Your task to perform on an android device: What's the weather like in San Francisco? Image 0: 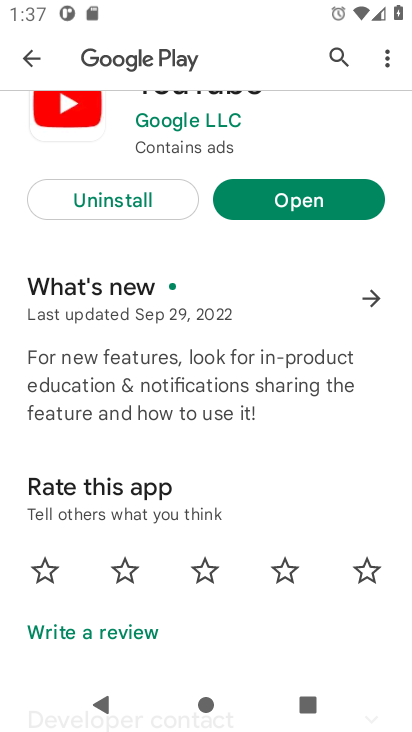
Step 0: press home button
Your task to perform on an android device: What's the weather like in San Francisco? Image 1: 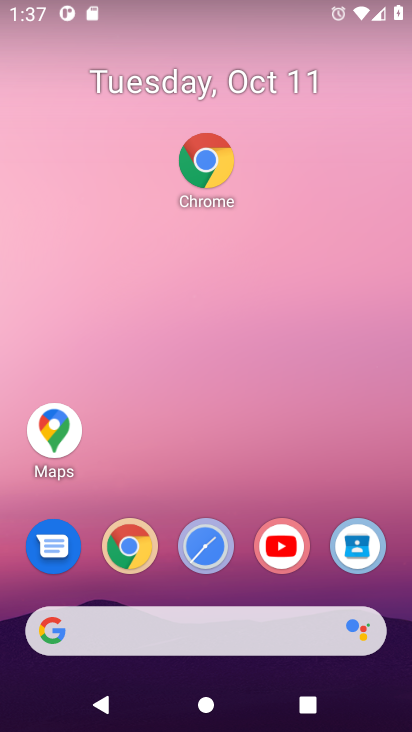
Step 1: click (131, 543)
Your task to perform on an android device: What's the weather like in San Francisco? Image 2: 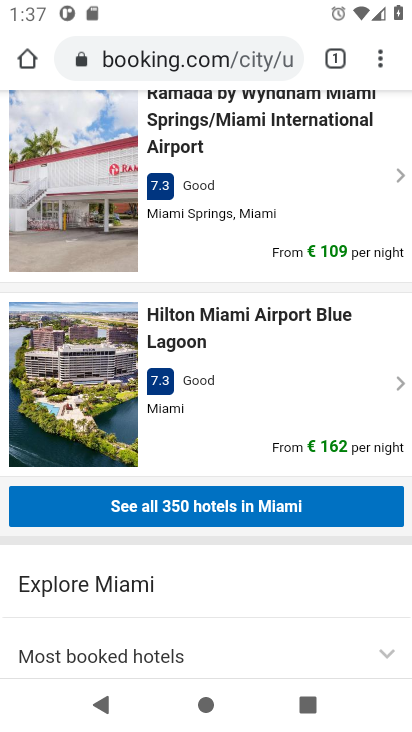
Step 2: click (183, 65)
Your task to perform on an android device: What's the weather like in San Francisco? Image 3: 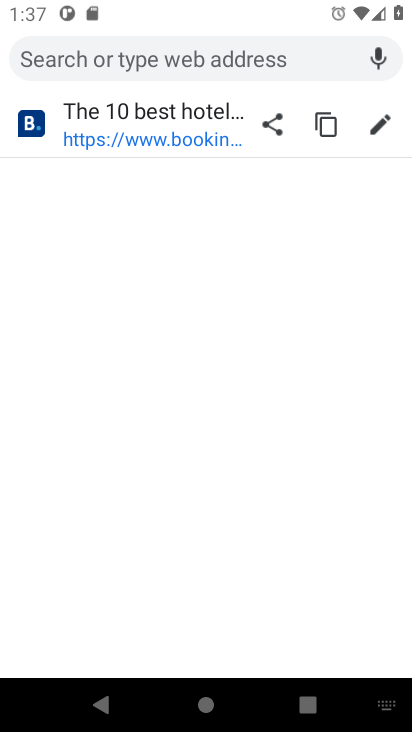
Step 3: type "weather in San Francisco"
Your task to perform on an android device: What's the weather like in San Francisco? Image 4: 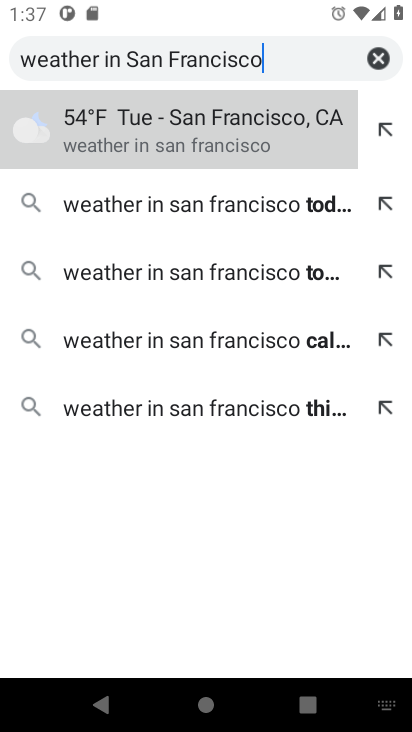
Step 4: type ""
Your task to perform on an android device: What's the weather like in San Francisco? Image 5: 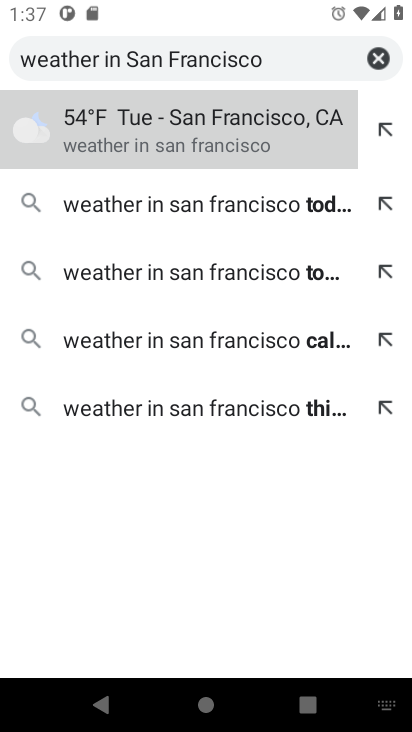
Step 5: press enter
Your task to perform on an android device: What's the weather like in San Francisco? Image 6: 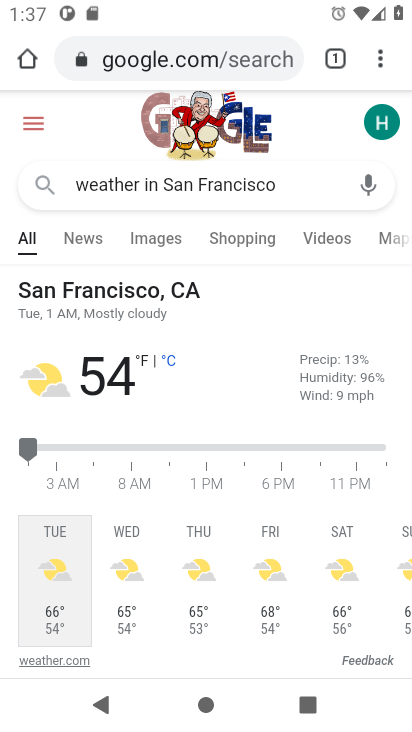
Step 6: task complete